Your task to perform on an android device: Check the news Image 0: 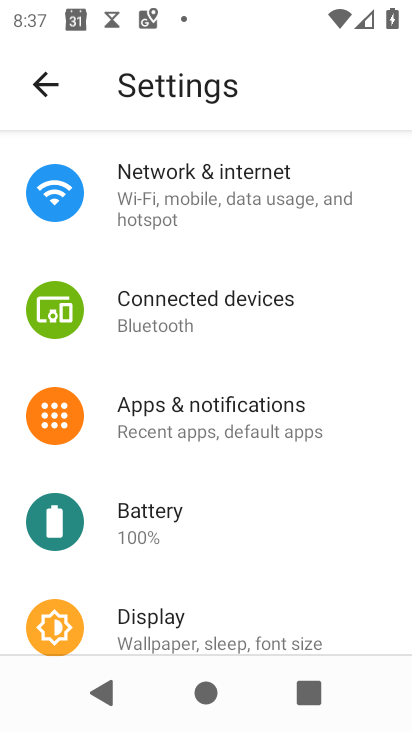
Step 0: press home button
Your task to perform on an android device: Check the news Image 1: 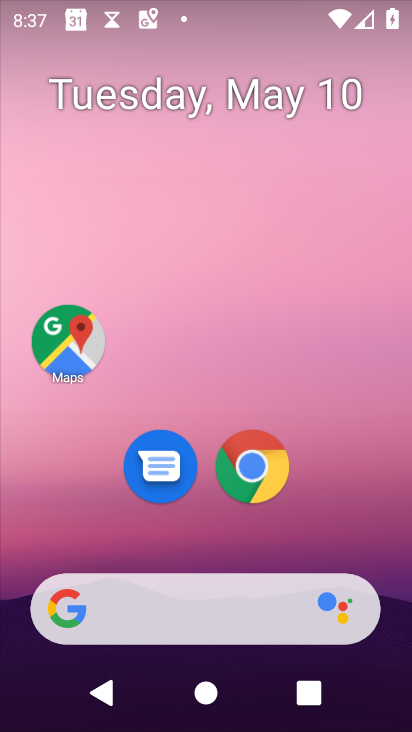
Step 1: drag from (266, 542) to (378, 40)
Your task to perform on an android device: Check the news Image 2: 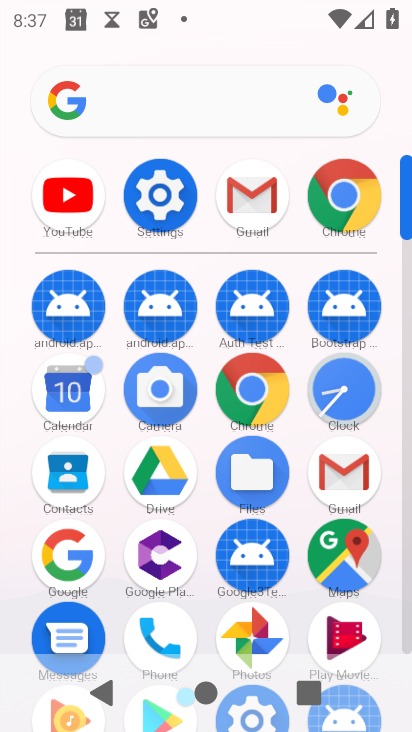
Step 2: click (165, 106)
Your task to perform on an android device: Check the news Image 3: 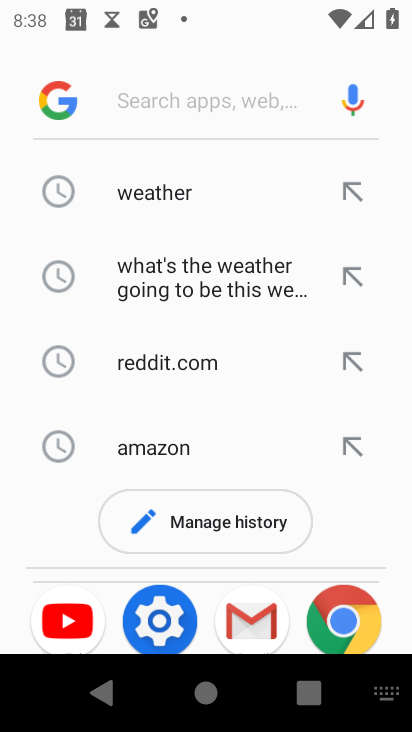
Step 3: type "news"
Your task to perform on an android device: Check the news Image 4: 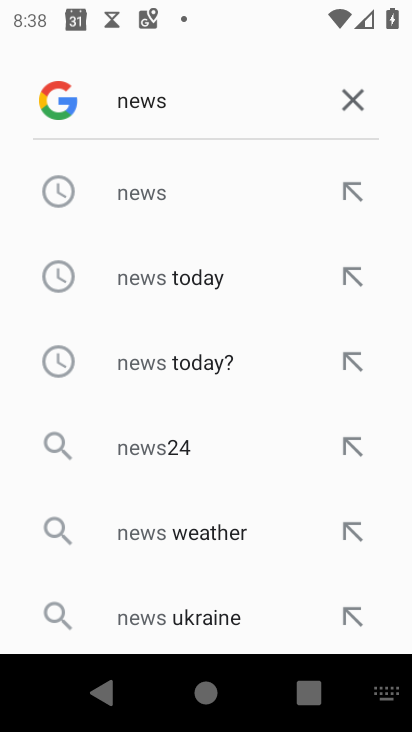
Step 4: click (126, 182)
Your task to perform on an android device: Check the news Image 5: 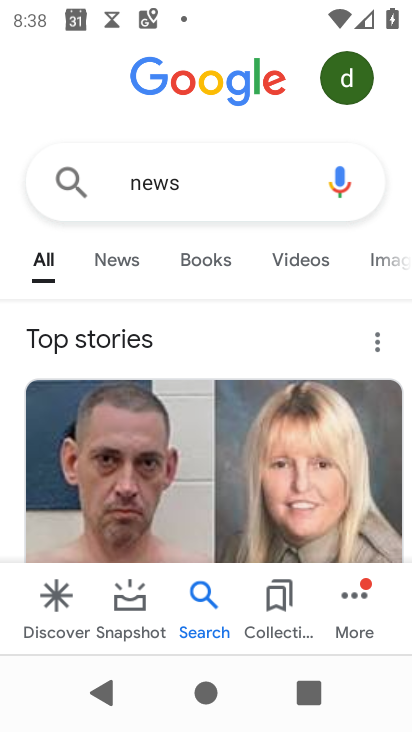
Step 5: click (139, 260)
Your task to perform on an android device: Check the news Image 6: 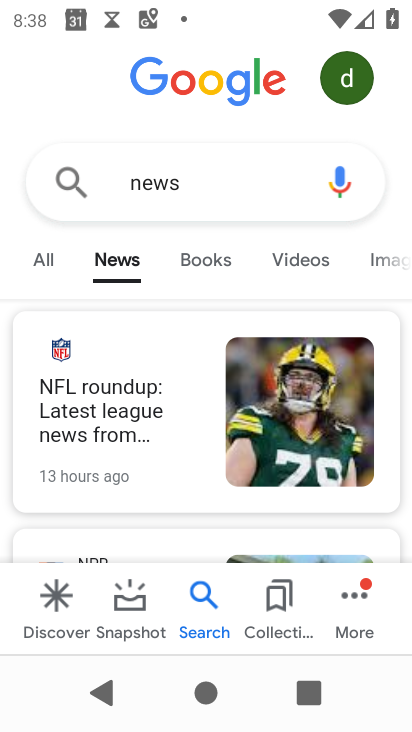
Step 6: task complete